Your task to perform on an android device: Open Google Maps and go to "Timeline" Image 0: 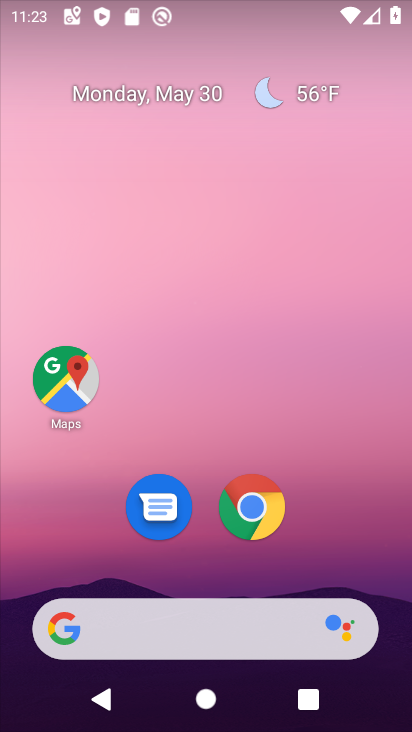
Step 0: click (76, 361)
Your task to perform on an android device: Open Google Maps and go to "Timeline" Image 1: 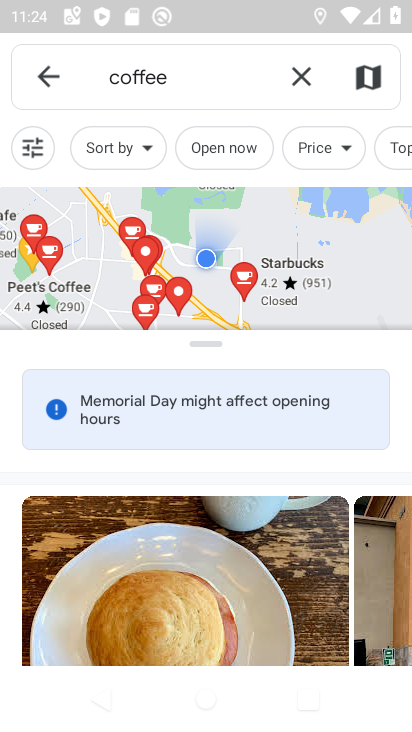
Step 1: click (38, 75)
Your task to perform on an android device: Open Google Maps and go to "Timeline" Image 2: 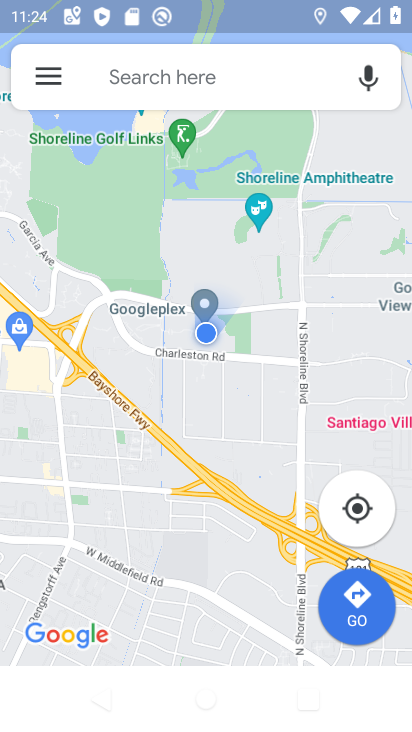
Step 2: click (46, 80)
Your task to perform on an android device: Open Google Maps and go to "Timeline" Image 3: 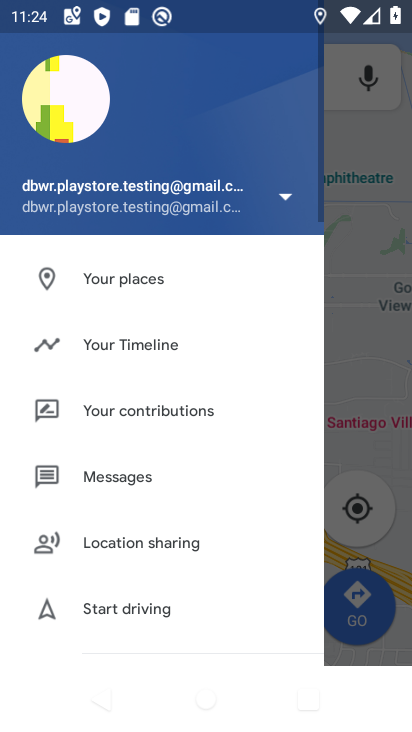
Step 3: click (154, 347)
Your task to perform on an android device: Open Google Maps and go to "Timeline" Image 4: 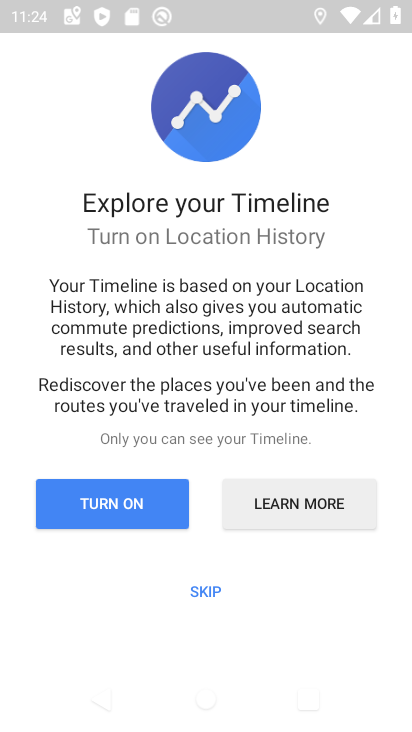
Step 4: click (196, 598)
Your task to perform on an android device: Open Google Maps and go to "Timeline" Image 5: 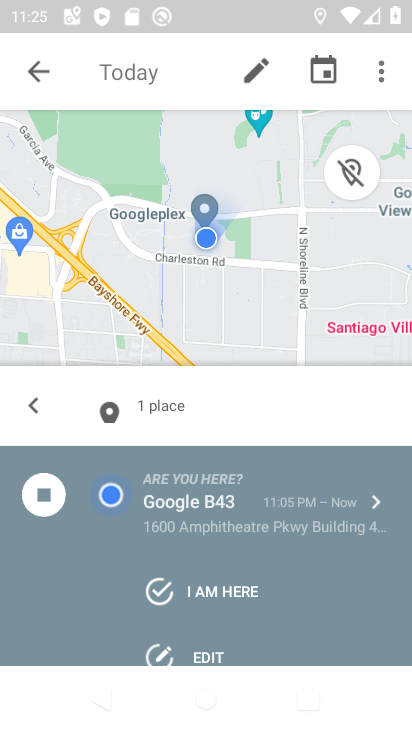
Step 5: task complete